Your task to perform on an android device: open app "Fetch Rewards" (install if not already installed) Image 0: 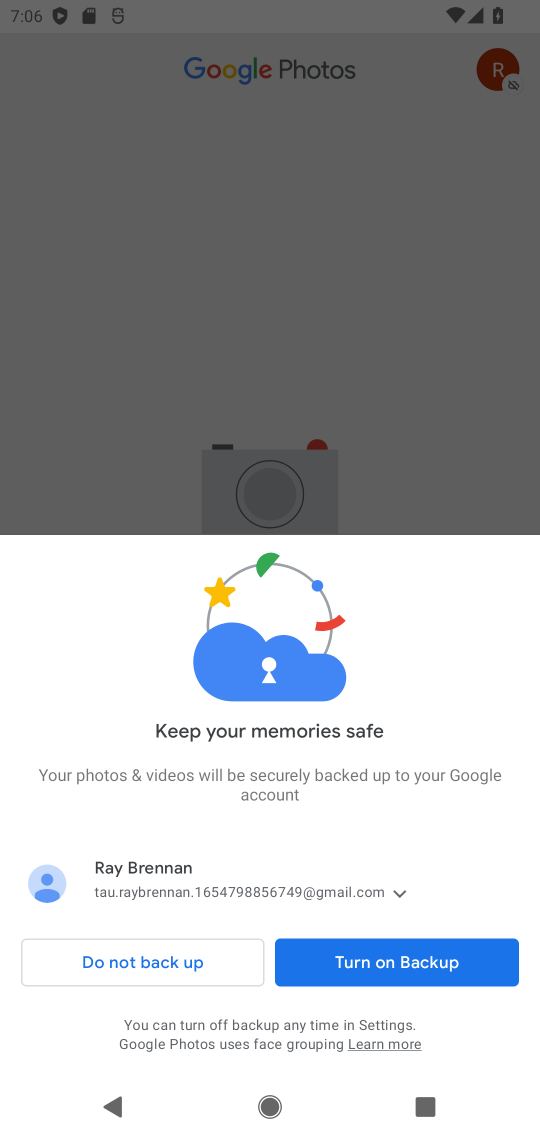
Step 0: press home button
Your task to perform on an android device: open app "Fetch Rewards" (install if not already installed) Image 1: 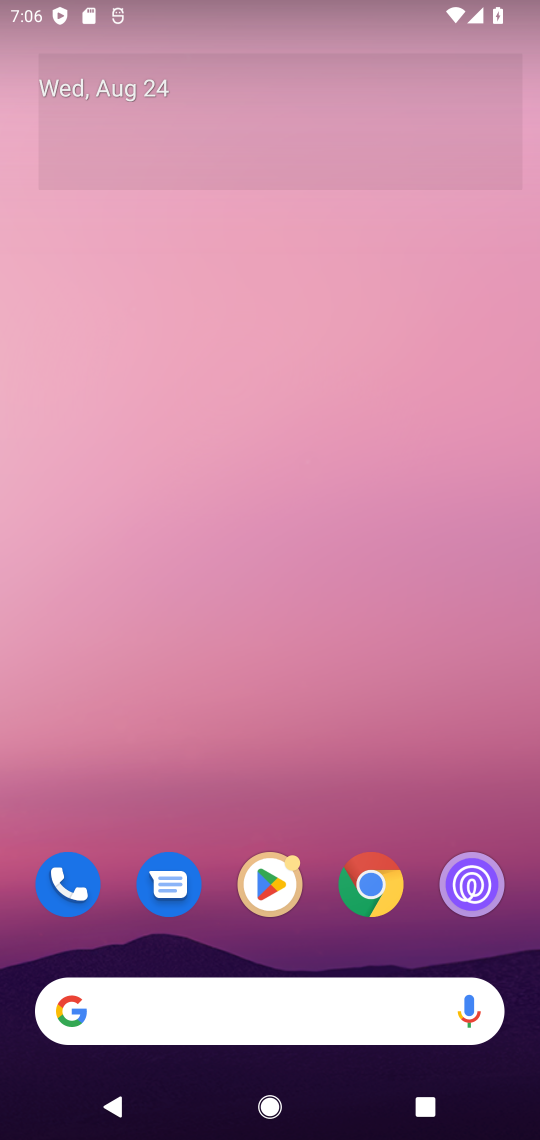
Step 1: click (274, 863)
Your task to perform on an android device: open app "Fetch Rewards" (install if not already installed) Image 2: 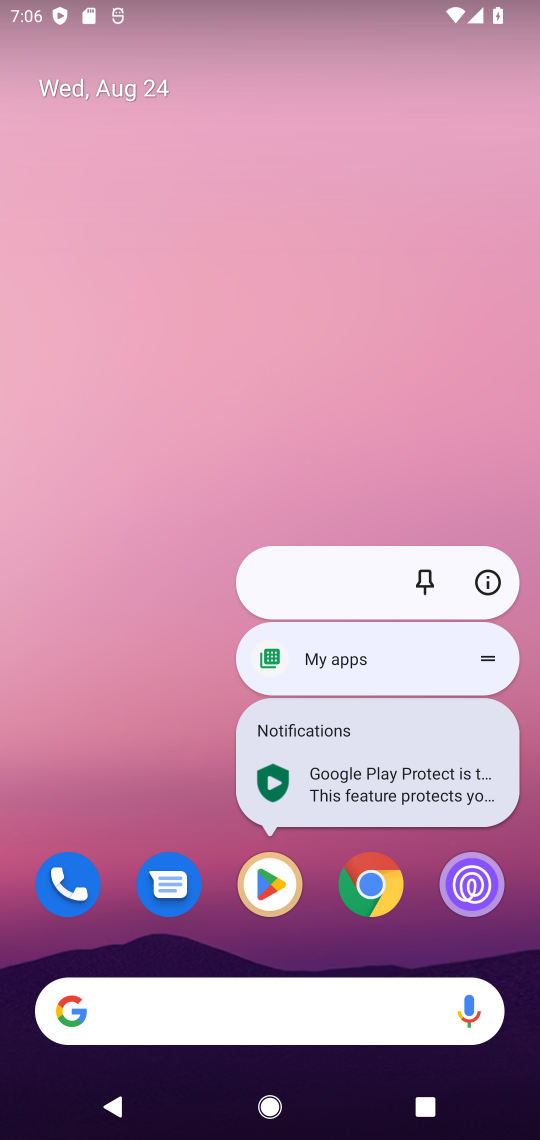
Step 2: click (275, 884)
Your task to perform on an android device: open app "Fetch Rewards" (install if not already installed) Image 3: 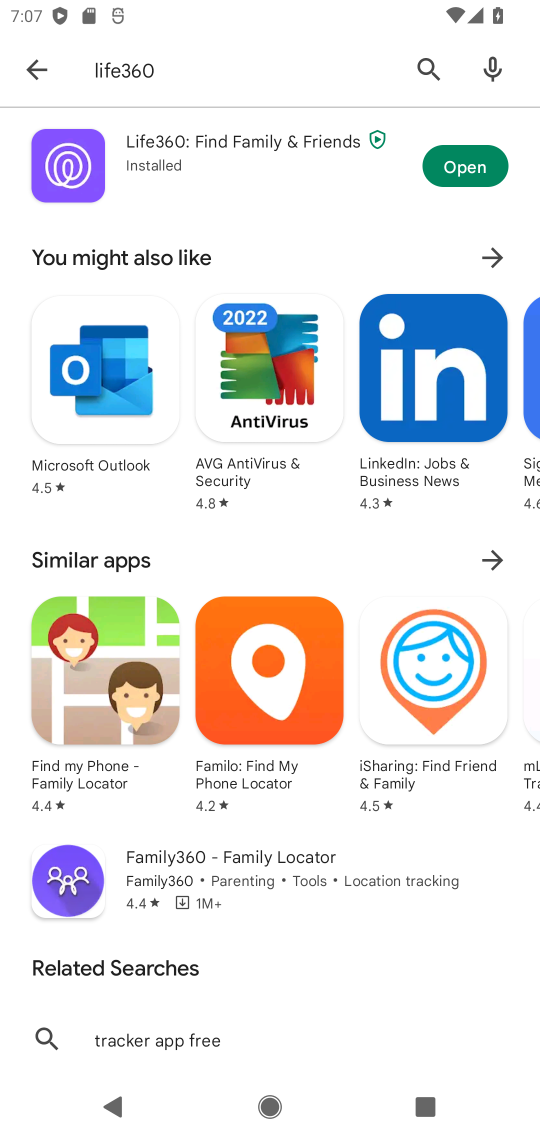
Step 3: click (420, 59)
Your task to perform on an android device: open app "Fetch Rewards" (install if not already installed) Image 4: 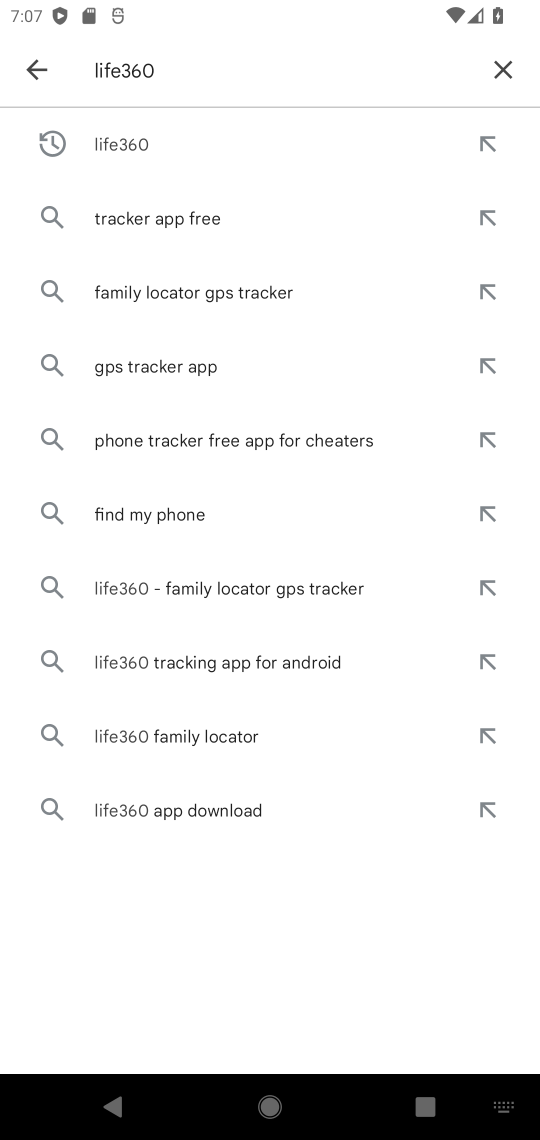
Step 4: click (502, 67)
Your task to perform on an android device: open app "Fetch Rewards" (install if not already installed) Image 5: 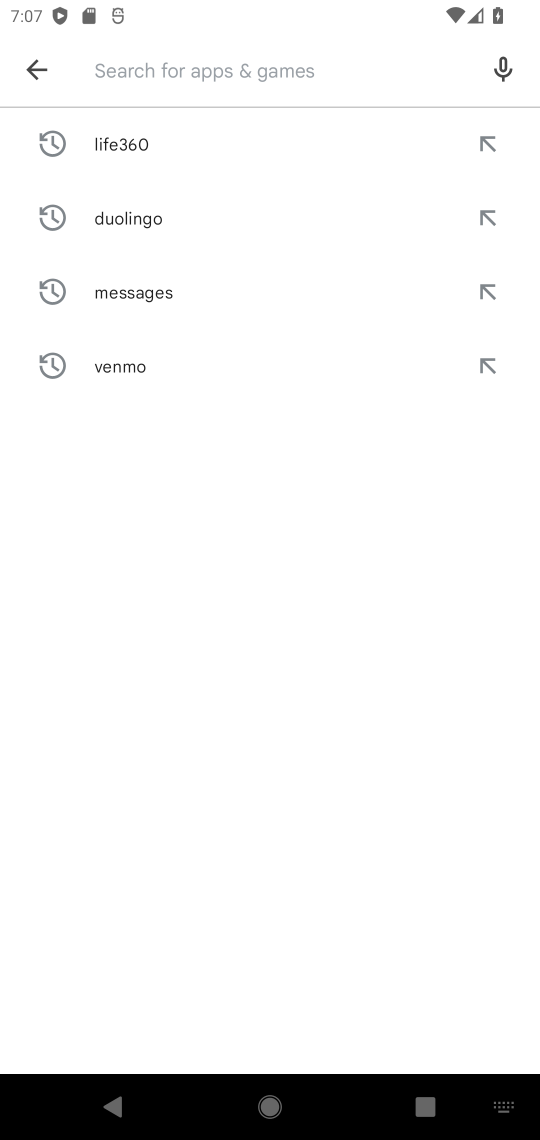
Step 5: type "fetch rewards"
Your task to perform on an android device: open app "Fetch Rewards" (install if not already installed) Image 6: 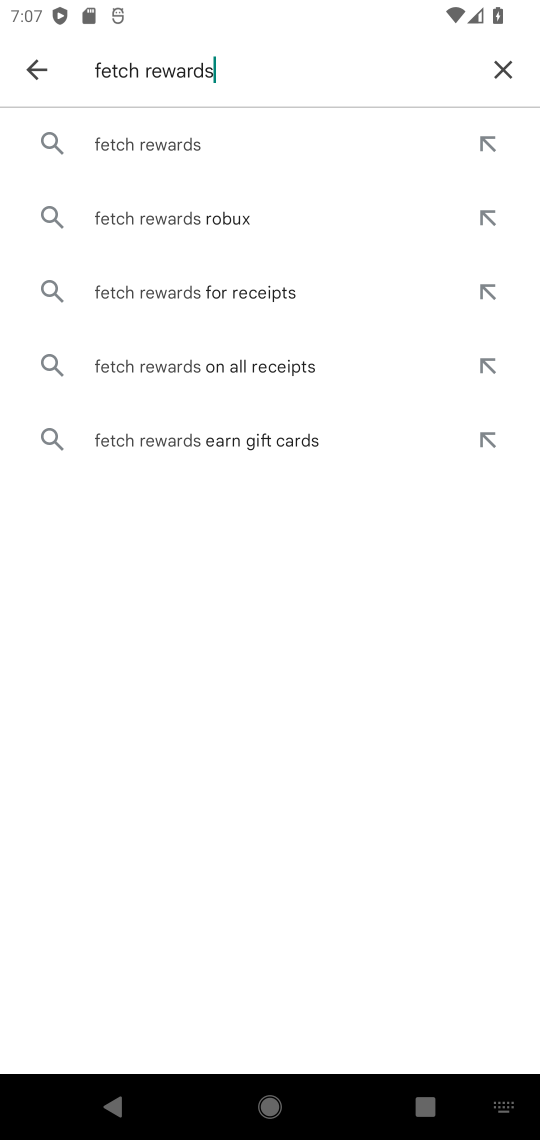
Step 6: click (189, 152)
Your task to perform on an android device: open app "Fetch Rewards" (install if not already installed) Image 7: 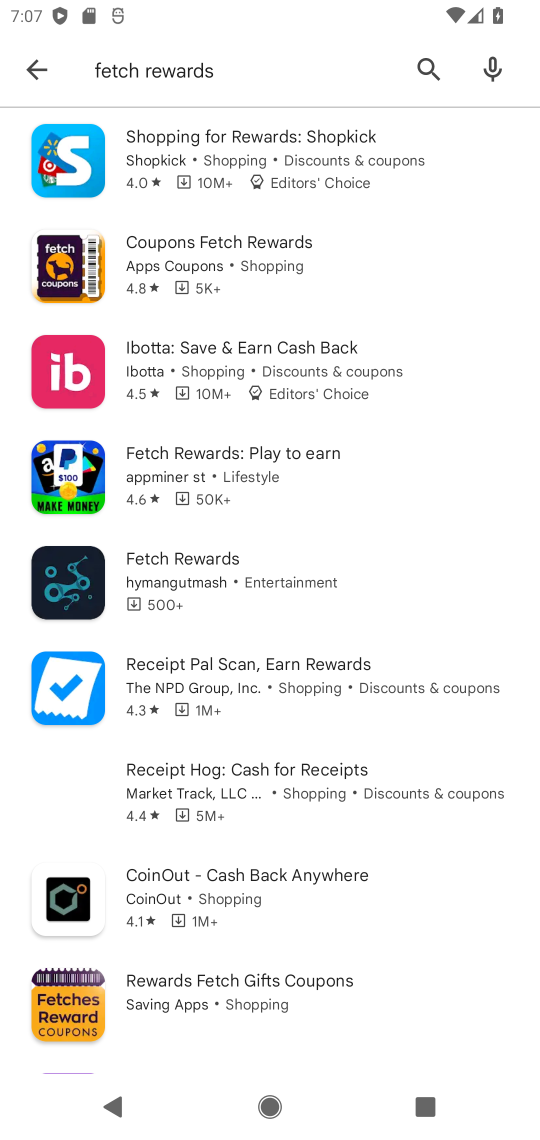
Step 7: task complete